Your task to perform on an android device: View the shopping cart on newegg. Search for asus zenbook on newegg, select the first entry, and add it to the cart. Image 0: 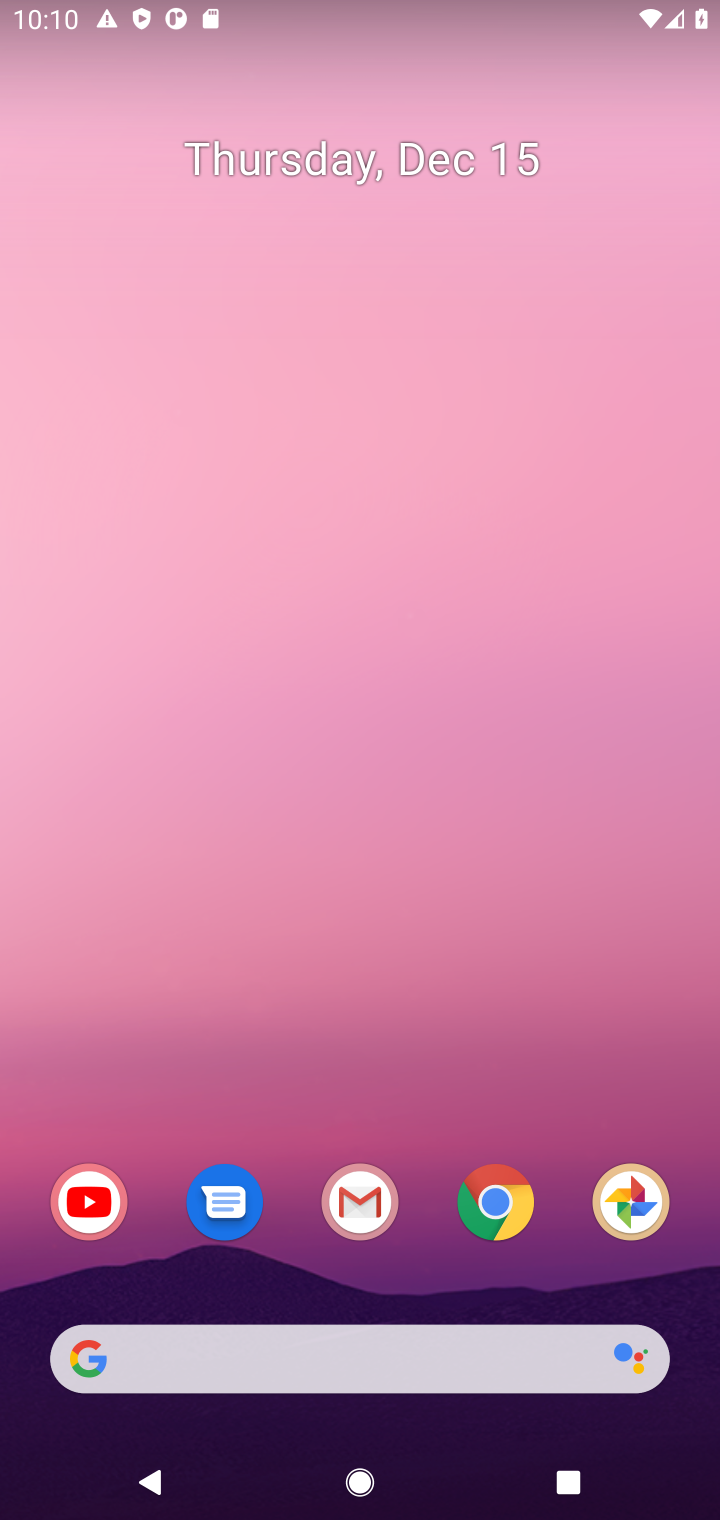
Step 0: click (496, 1205)
Your task to perform on an android device: View the shopping cart on newegg. Search for asus zenbook on newegg, select the first entry, and add it to the cart. Image 1: 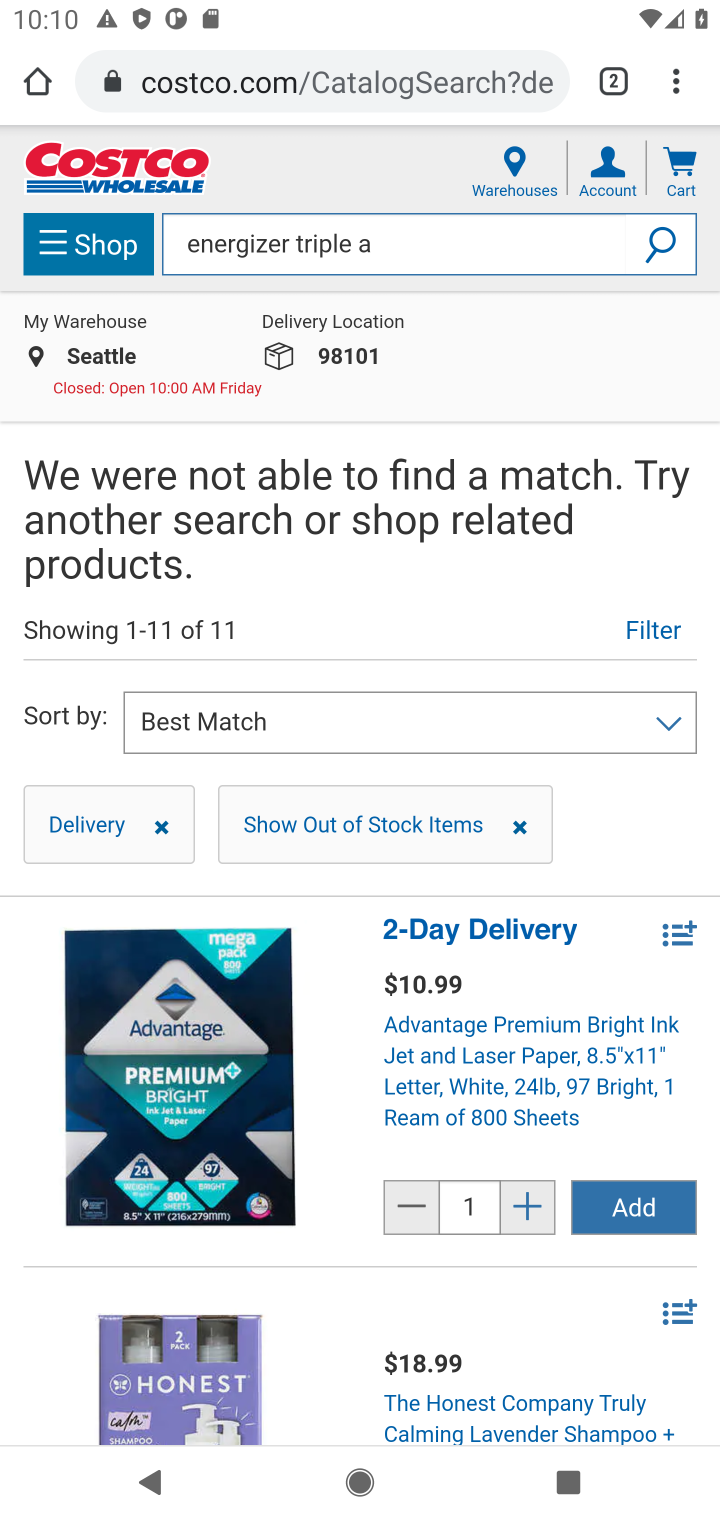
Step 1: click (266, 82)
Your task to perform on an android device: View the shopping cart on newegg. Search for asus zenbook on newegg, select the first entry, and add it to the cart. Image 2: 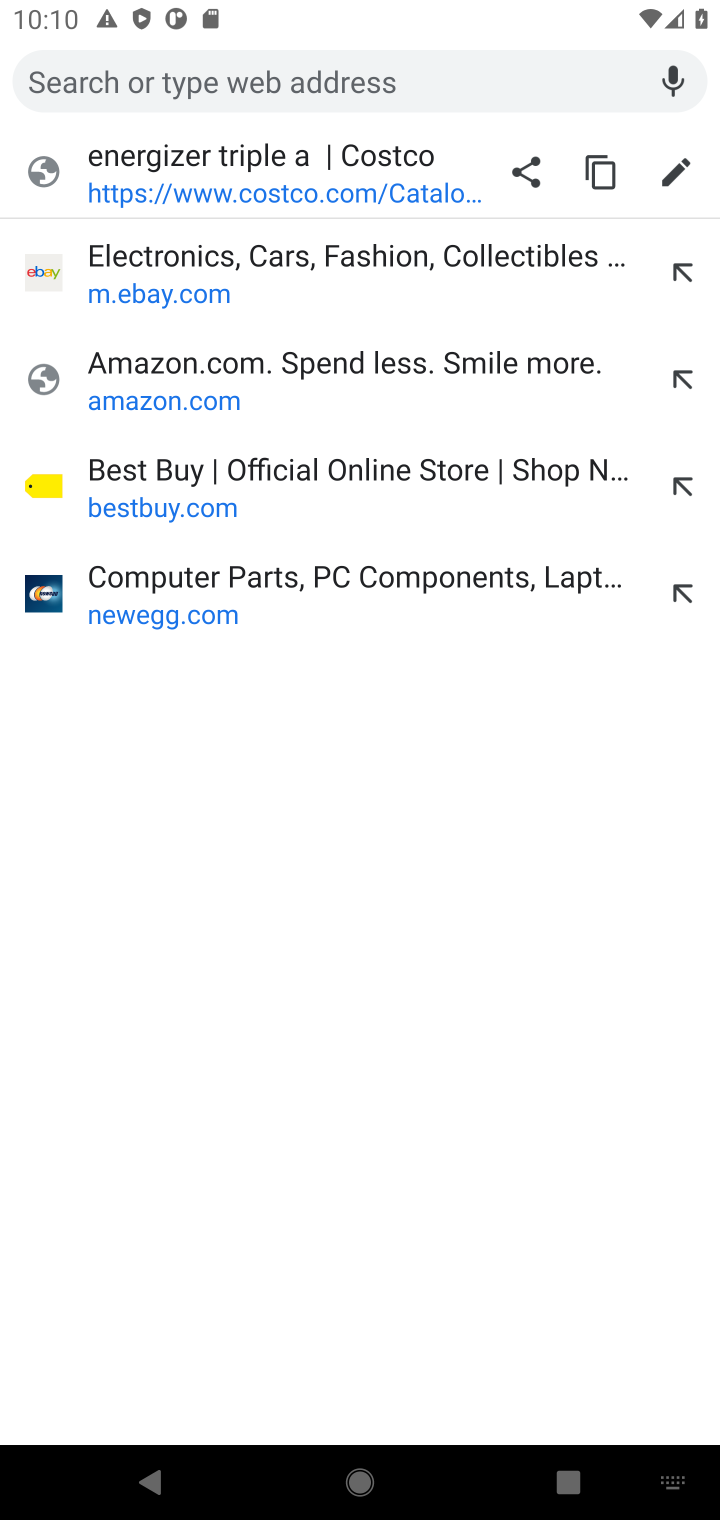
Step 2: click (158, 592)
Your task to perform on an android device: View the shopping cart on newegg. Search for asus zenbook on newegg, select the first entry, and add it to the cart. Image 3: 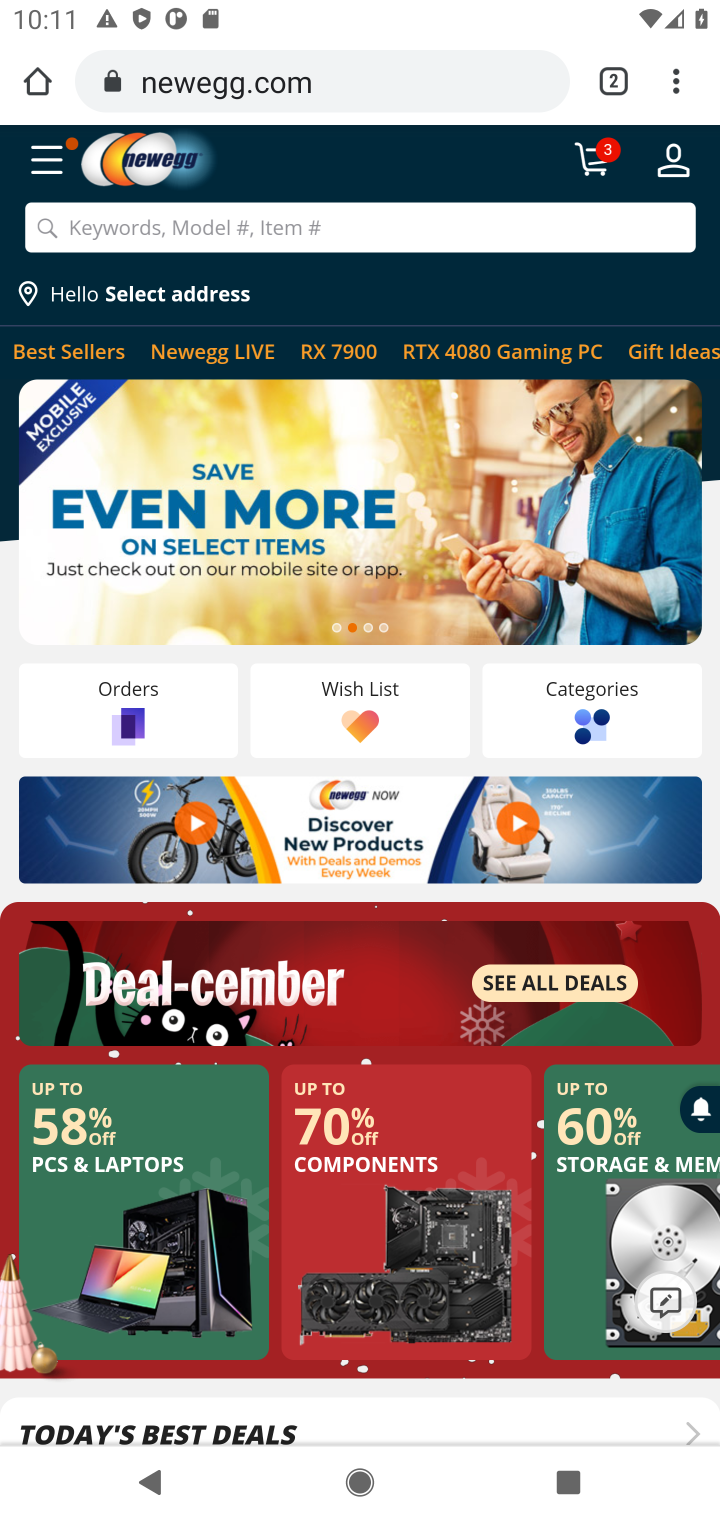
Step 3: click (591, 169)
Your task to perform on an android device: View the shopping cart on newegg. Search for asus zenbook on newegg, select the first entry, and add it to the cart. Image 4: 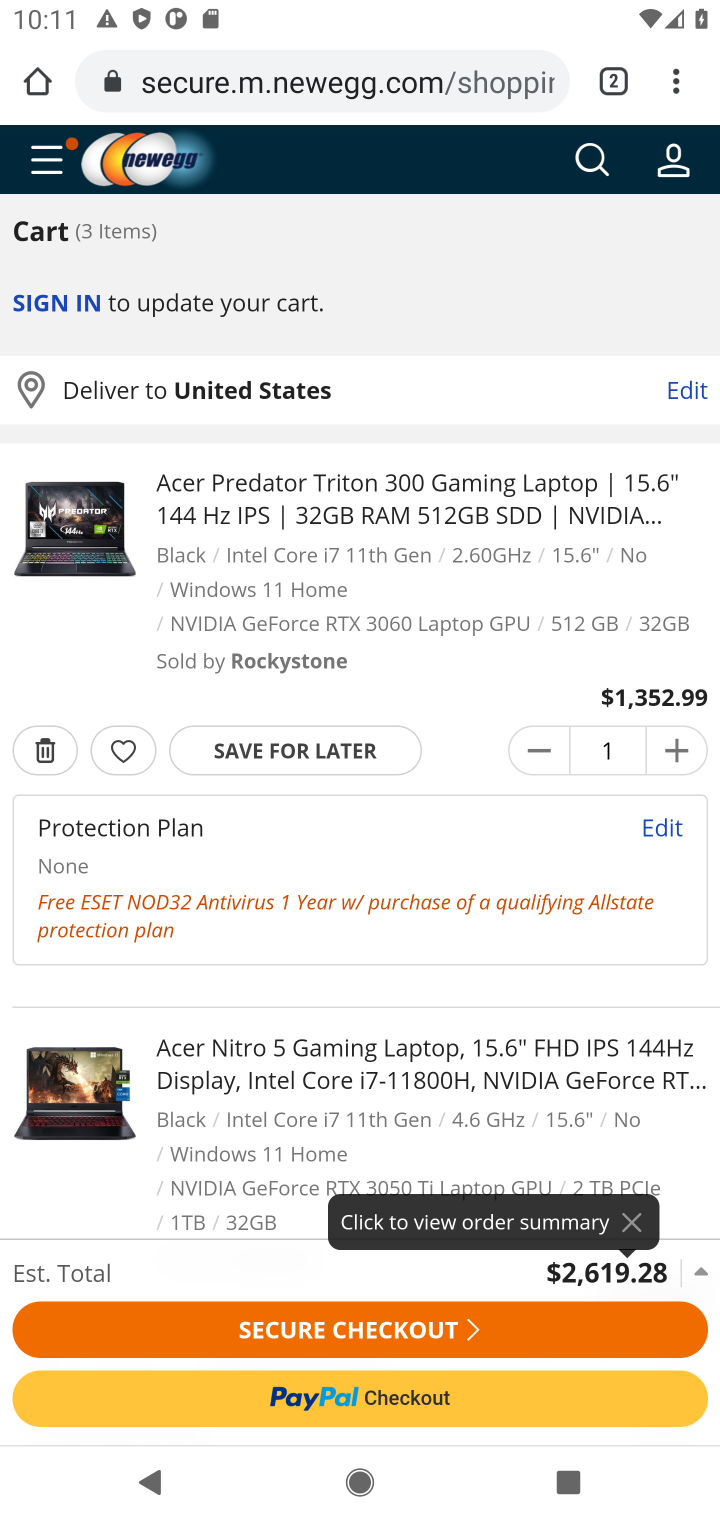
Step 4: click (580, 167)
Your task to perform on an android device: View the shopping cart on newegg. Search for asus zenbook on newegg, select the first entry, and add it to the cart. Image 5: 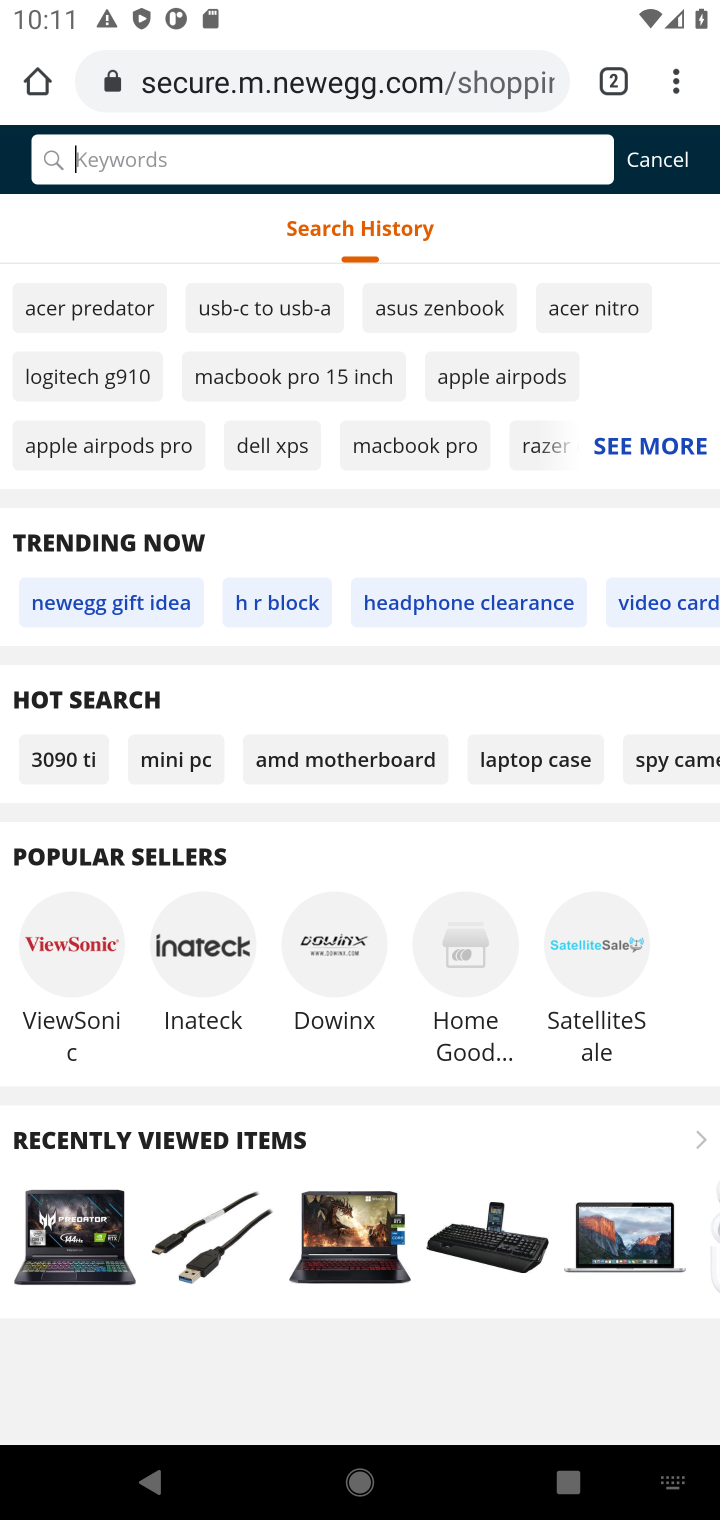
Step 5: type "asus zenbook"
Your task to perform on an android device: View the shopping cart on newegg. Search for asus zenbook on newegg, select the first entry, and add it to the cart. Image 6: 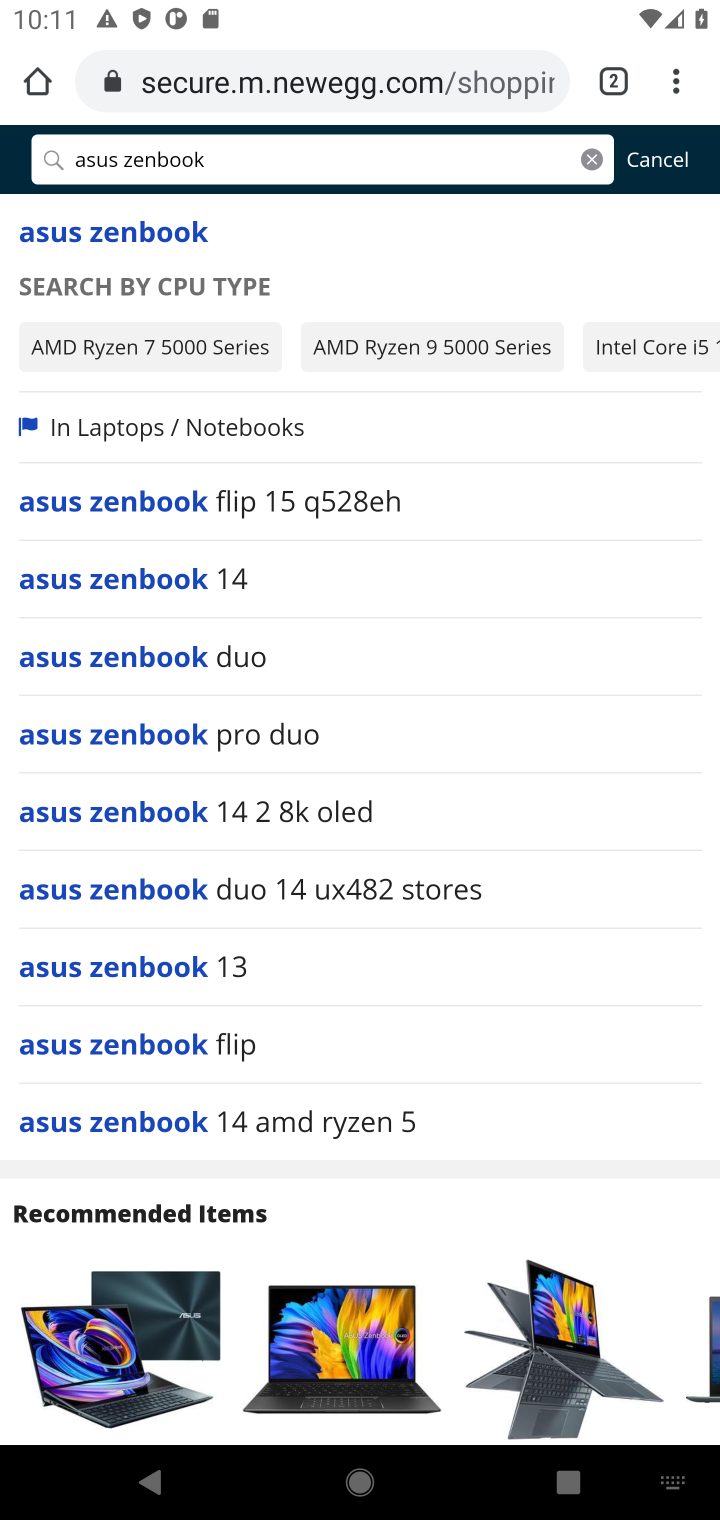
Step 6: click (164, 228)
Your task to perform on an android device: View the shopping cart on newegg. Search for asus zenbook on newegg, select the first entry, and add it to the cart. Image 7: 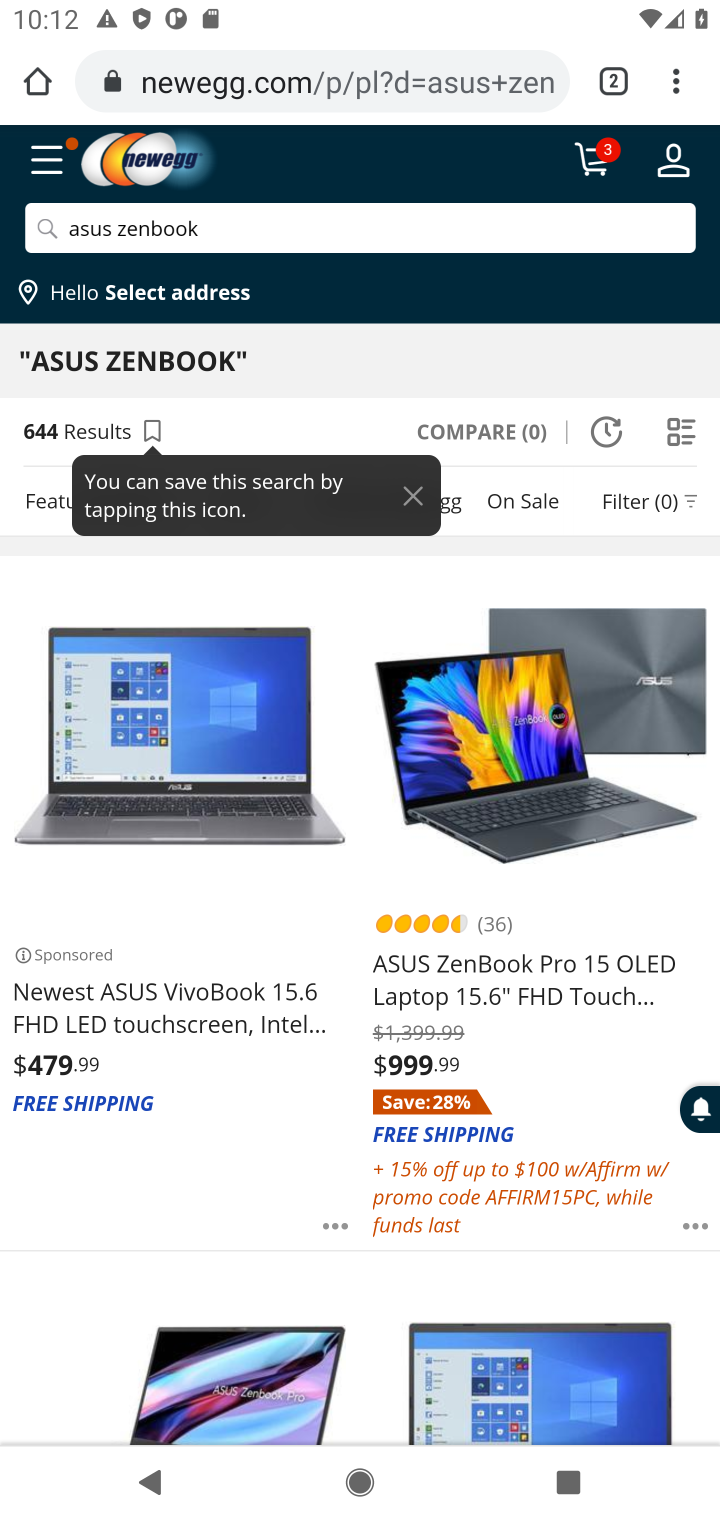
Step 7: task complete